Your task to perform on an android device: see tabs open on other devices in the chrome app Image 0: 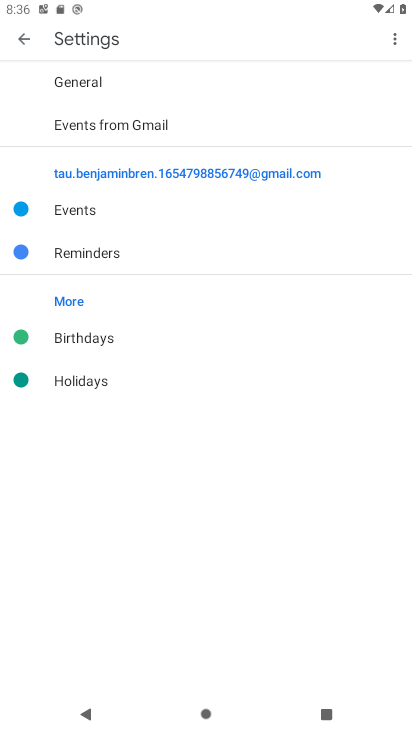
Step 0: press home button
Your task to perform on an android device: see tabs open on other devices in the chrome app Image 1: 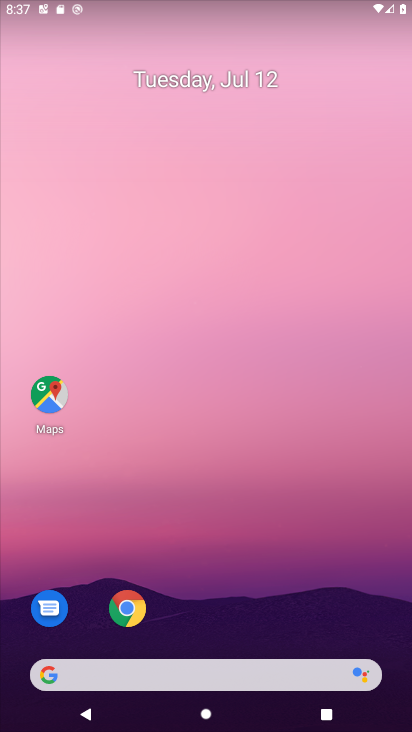
Step 1: click (119, 612)
Your task to perform on an android device: see tabs open on other devices in the chrome app Image 2: 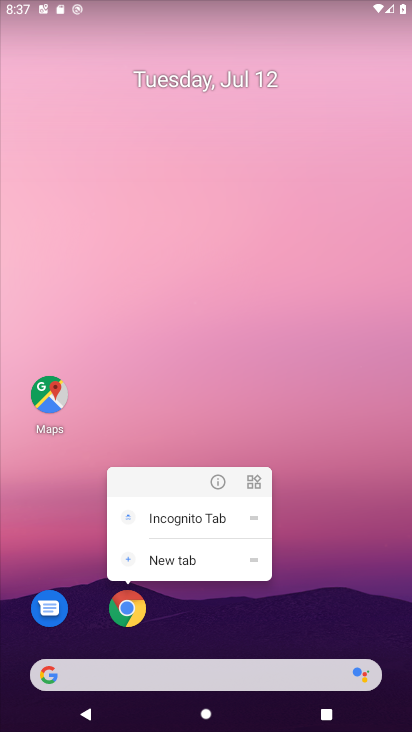
Step 2: click (126, 610)
Your task to perform on an android device: see tabs open on other devices in the chrome app Image 3: 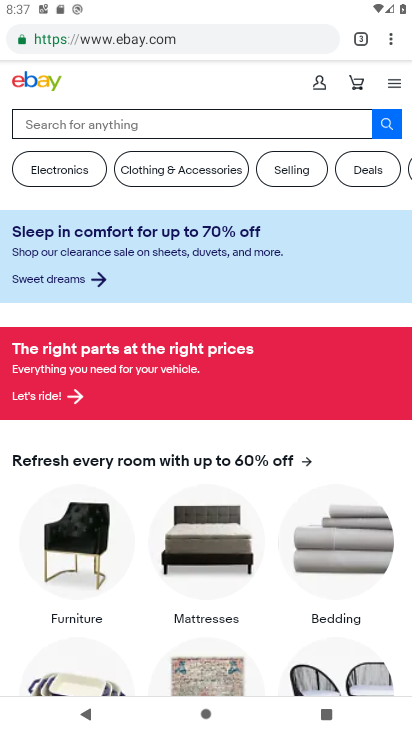
Step 3: click (390, 48)
Your task to perform on an android device: see tabs open on other devices in the chrome app Image 4: 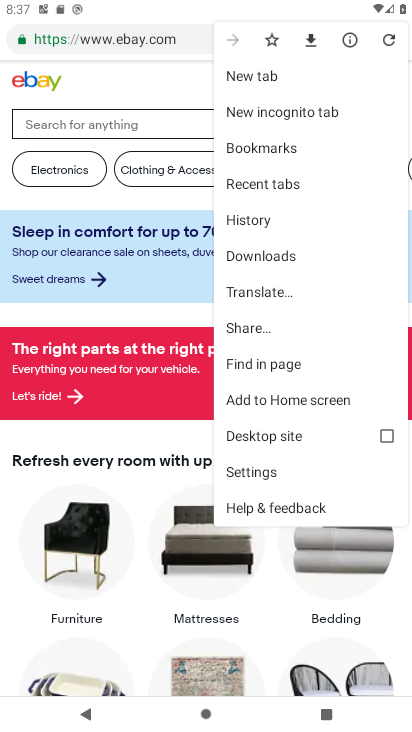
Step 4: click (270, 182)
Your task to perform on an android device: see tabs open on other devices in the chrome app Image 5: 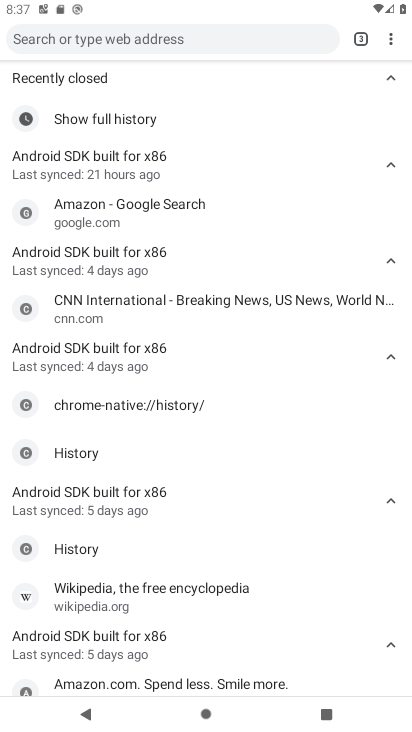
Step 5: task complete